Your task to perform on an android device: set an alarm Image 0: 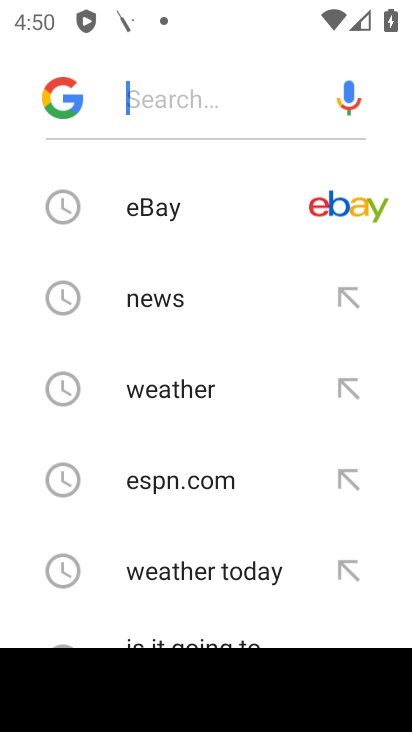
Step 0: press home button
Your task to perform on an android device: set an alarm Image 1: 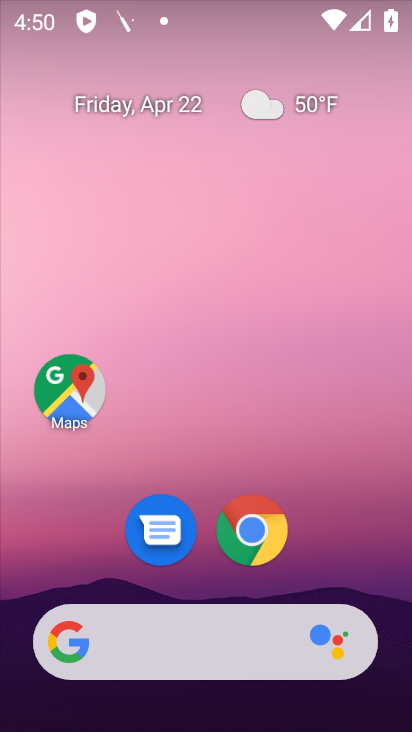
Step 1: drag from (311, 560) to (251, 14)
Your task to perform on an android device: set an alarm Image 2: 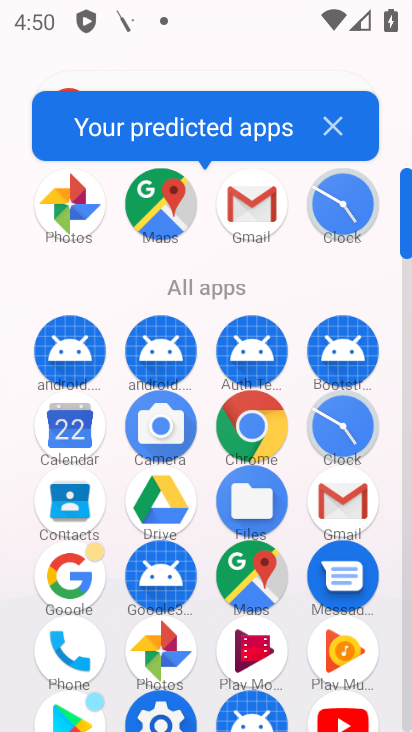
Step 2: click (340, 428)
Your task to perform on an android device: set an alarm Image 3: 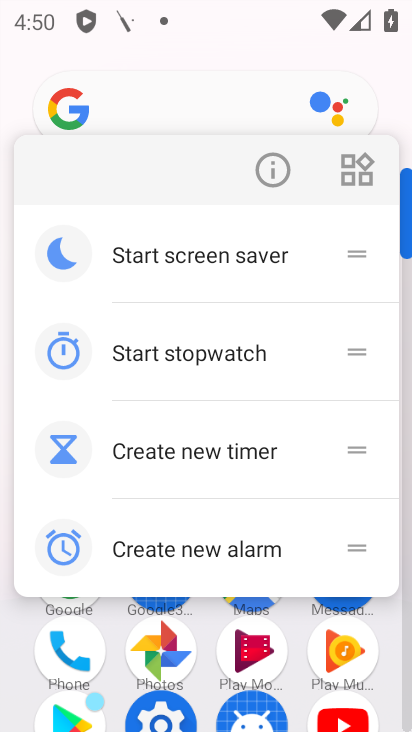
Step 3: click (225, 48)
Your task to perform on an android device: set an alarm Image 4: 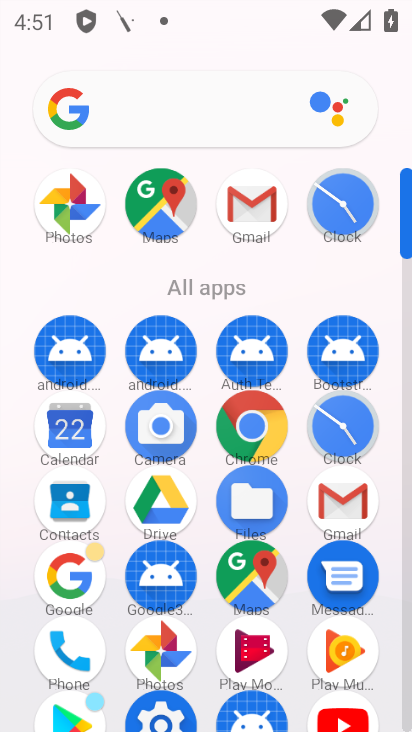
Step 4: click (329, 423)
Your task to perform on an android device: set an alarm Image 5: 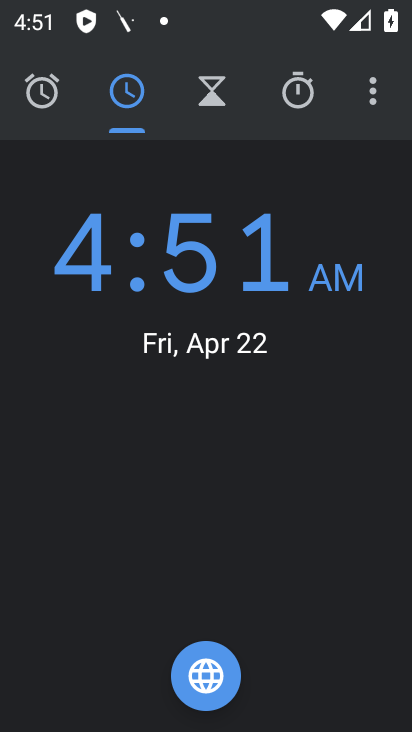
Step 5: click (42, 98)
Your task to perform on an android device: set an alarm Image 6: 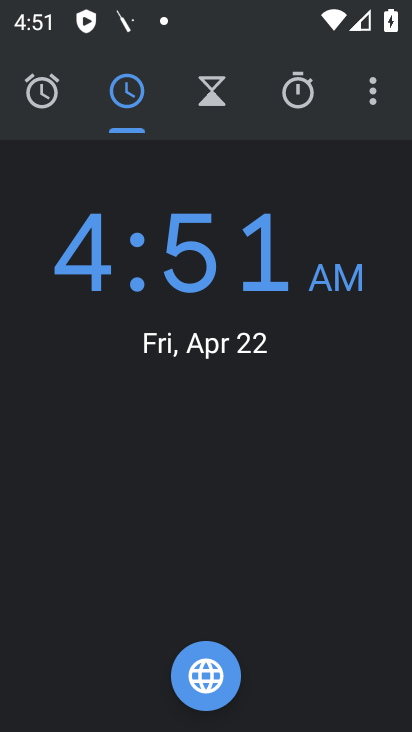
Step 6: click (40, 93)
Your task to perform on an android device: set an alarm Image 7: 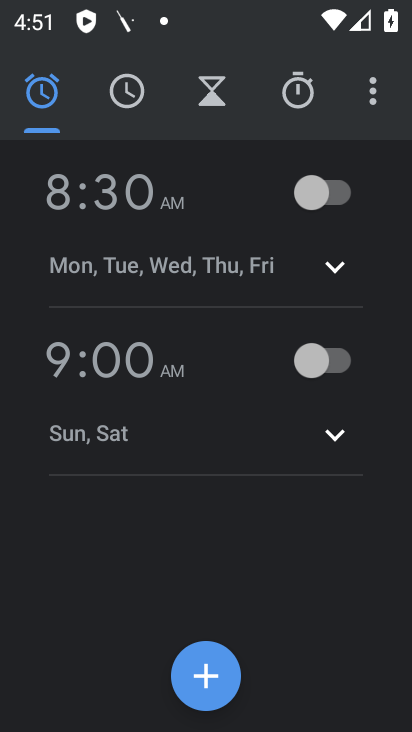
Step 7: click (149, 361)
Your task to perform on an android device: set an alarm Image 8: 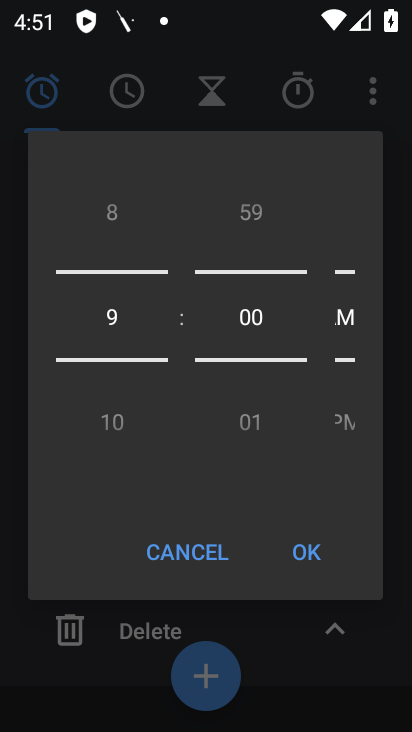
Step 8: drag from (117, 211) to (117, 390)
Your task to perform on an android device: set an alarm Image 9: 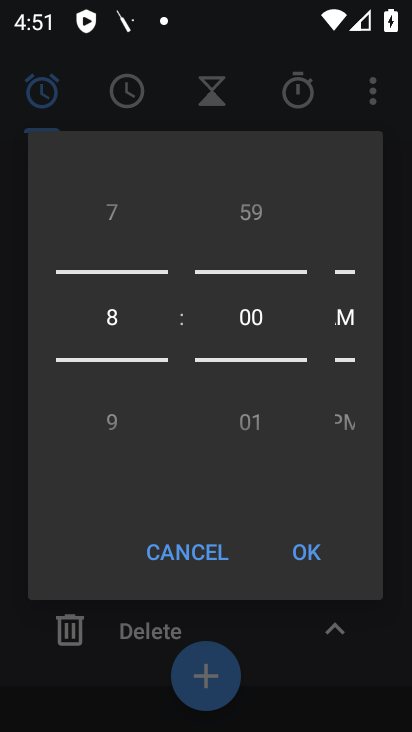
Step 9: drag from (340, 320) to (345, 406)
Your task to perform on an android device: set an alarm Image 10: 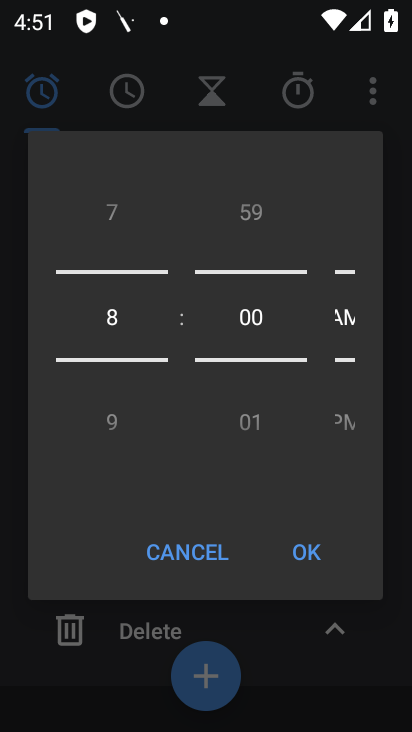
Step 10: click (313, 555)
Your task to perform on an android device: set an alarm Image 11: 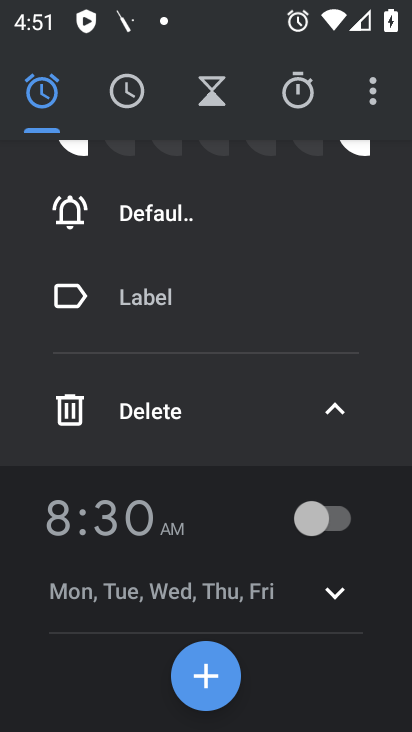
Step 11: click (336, 518)
Your task to perform on an android device: set an alarm Image 12: 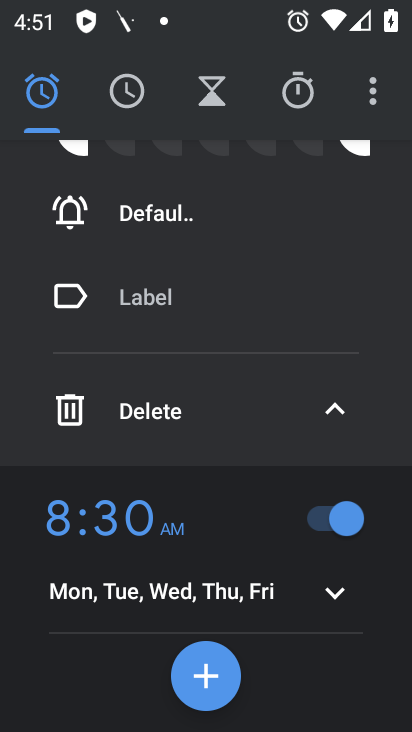
Step 12: task complete